Your task to perform on an android device: open a bookmark in the chrome app Image 0: 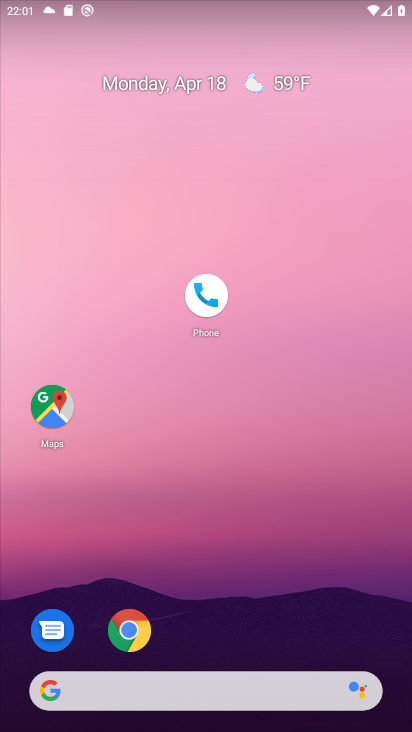
Step 0: drag from (241, 623) to (312, 96)
Your task to perform on an android device: open a bookmark in the chrome app Image 1: 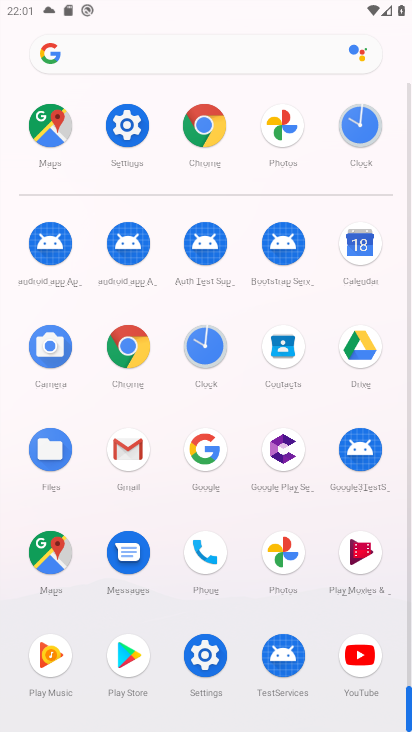
Step 1: click (201, 127)
Your task to perform on an android device: open a bookmark in the chrome app Image 2: 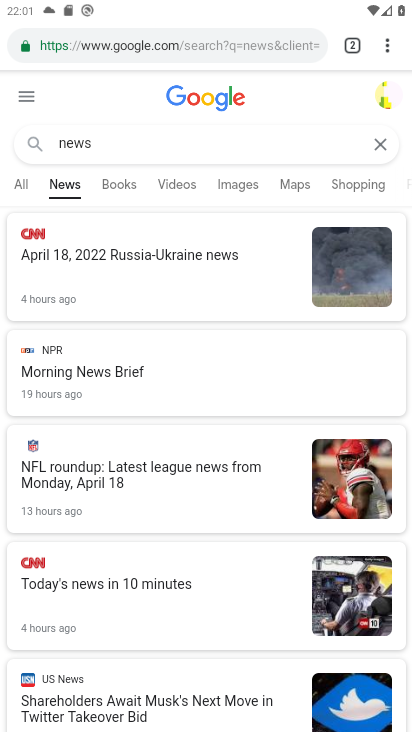
Step 2: click (385, 49)
Your task to perform on an android device: open a bookmark in the chrome app Image 3: 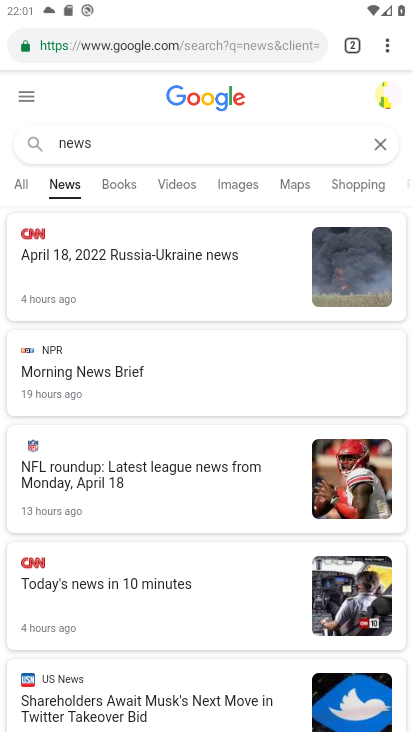
Step 3: drag from (385, 45) to (232, 230)
Your task to perform on an android device: open a bookmark in the chrome app Image 4: 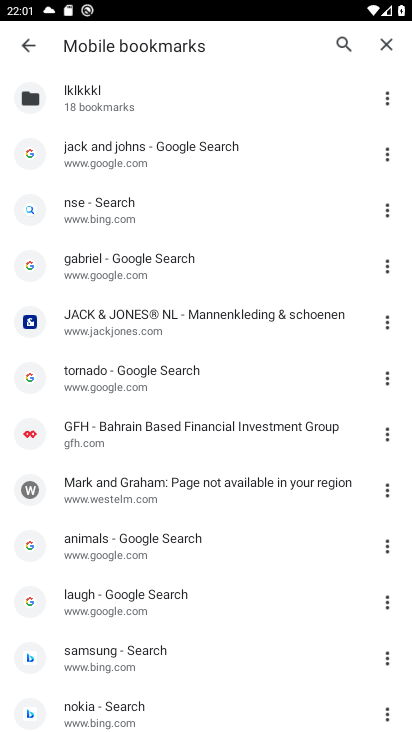
Step 4: click (138, 159)
Your task to perform on an android device: open a bookmark in the chrome app Image 5: 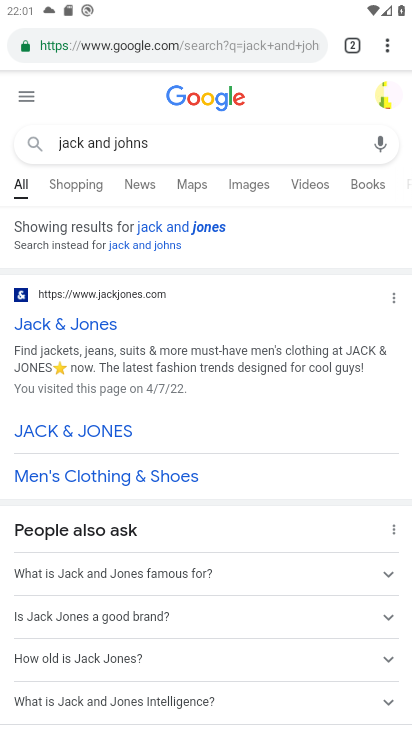
Step 5: click (210, 45)
Your task to perform on an android device: open a bookmark in the chrome app Image 6: 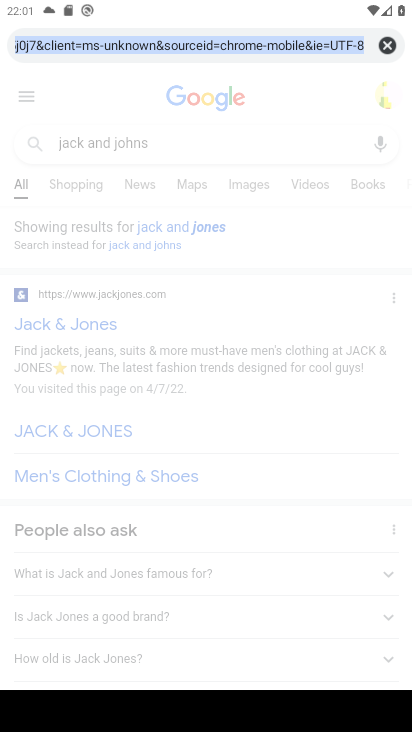
Step 6: click (391, 45)
Your task to perform on an android device: open a bookmark in the chrome app Image 7: 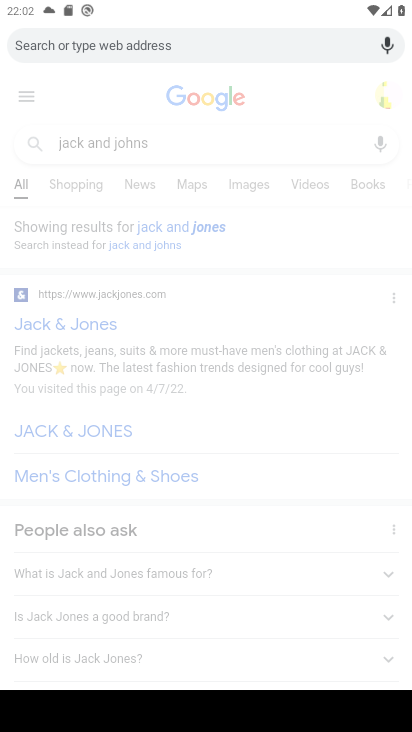
Step 7: press back button
Your task to perform on an android device: open a bookmark in the chrome app Image 8: 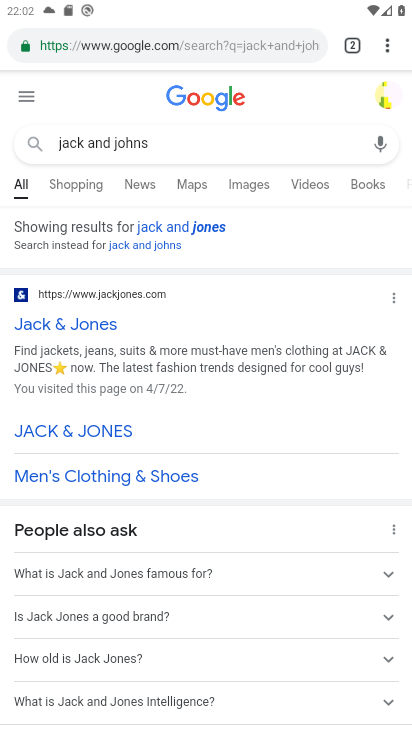
Step 8: click (391, 46)
Your task to perform on an android device: open a bookmark in the chrome app Image 9: 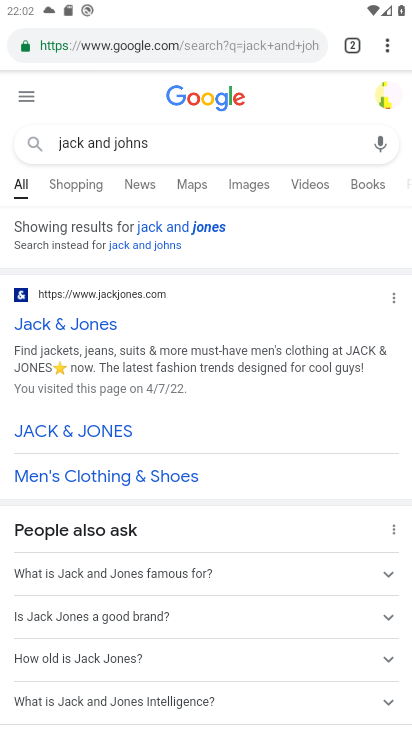
Step 9: click (389, 40)
Your task to perform on an android device: open a bookmark in the chrome app Image 10: 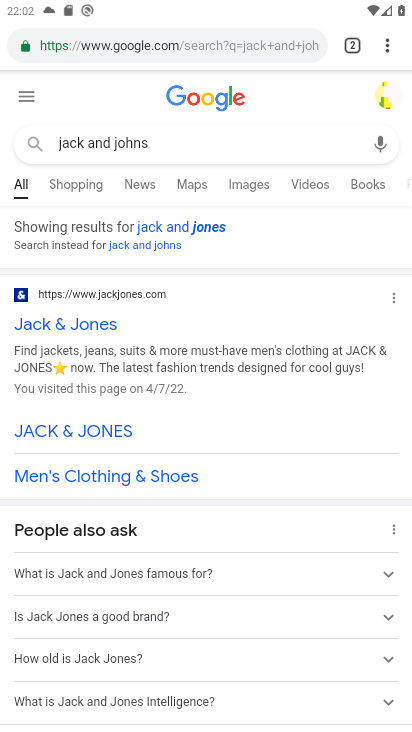
Step 10: drag from (387, 38) to (237, 229)
Your task to perform on an android device: open a bookmark in the chrome app Image 11: 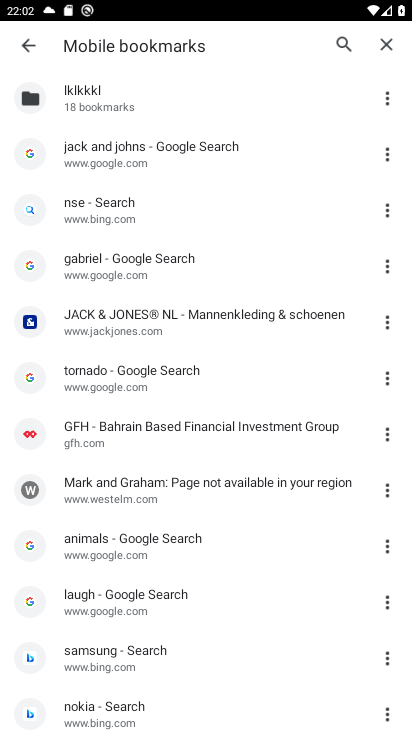
Step 11: click (108, 146)
Your task to perform on an android device: open a bookmark in the chrome app Image 12: 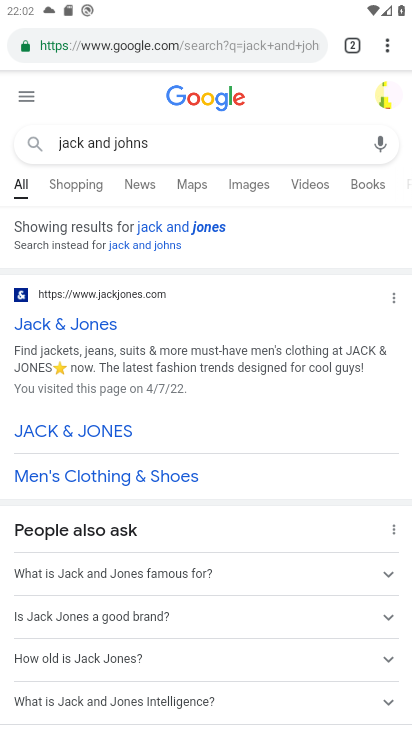
Step 12: task complete